Your task to perform on an android device: Go to wifi settings Image 0: 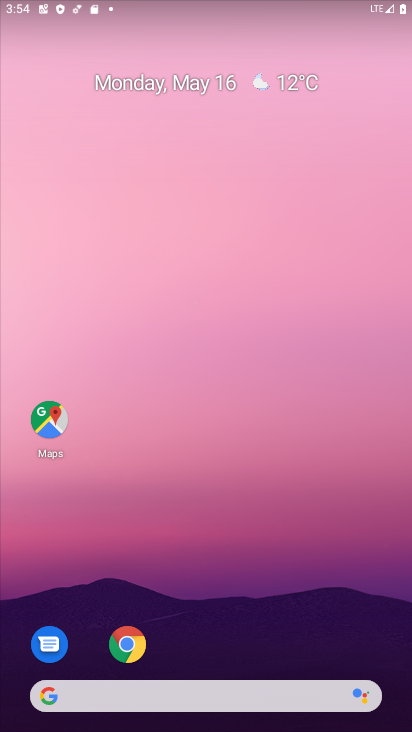
Step 0: drag from (64, 3) to (95, 442)
Your task to perform on an android device: Go to wifi settings Image 1: 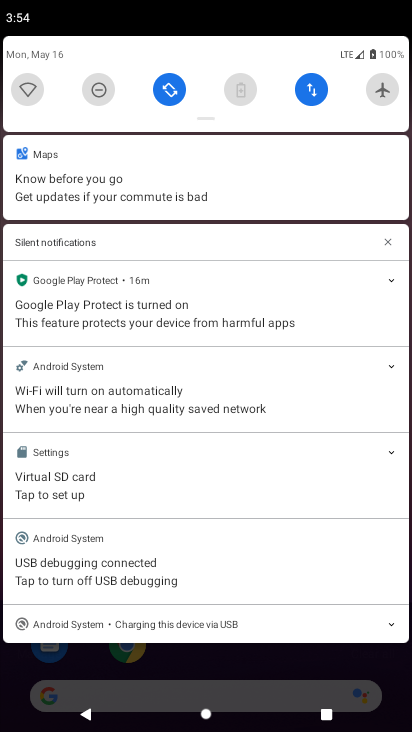
Step 1: click (27, 87)
Your task to perform on an android device: Go to wifi settings Image 2: 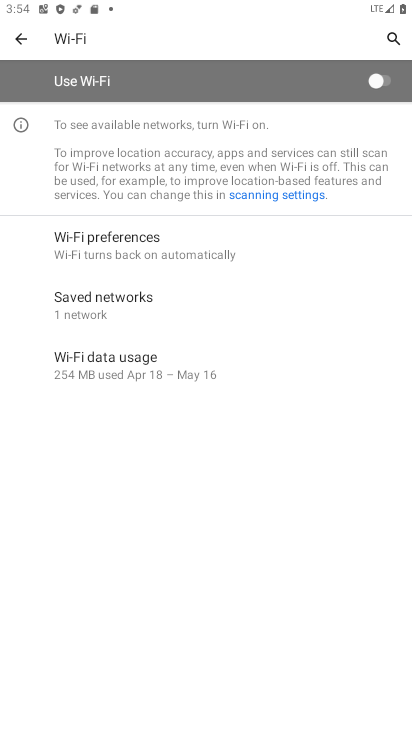
Step 2: task complete